Your task to perform on an android device: toggle improve location accuracy Image 0: 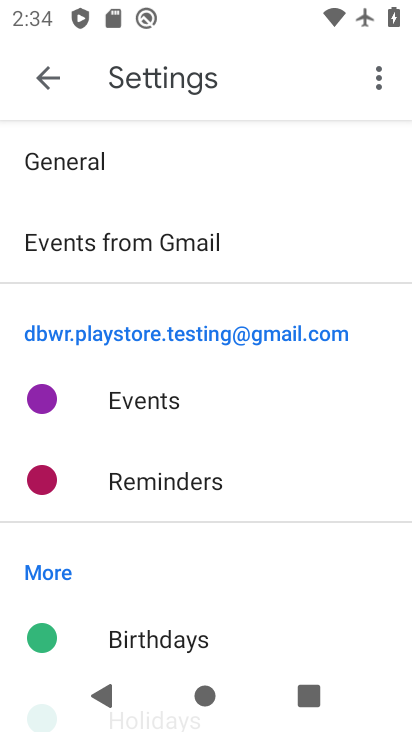
Step 0: press home button
Your task to perform on an android device: toggle improve location accuracy Image 1: 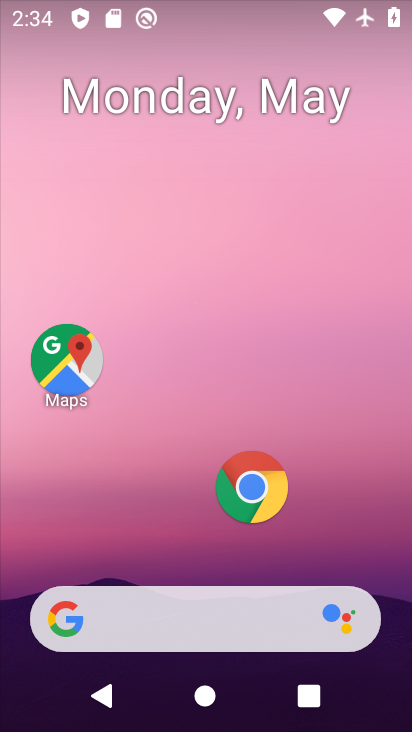
Step 1: drag from (146, 526) to (251, 89)
Your task to perform on an android device: toggle improve location accuracy Image 2: 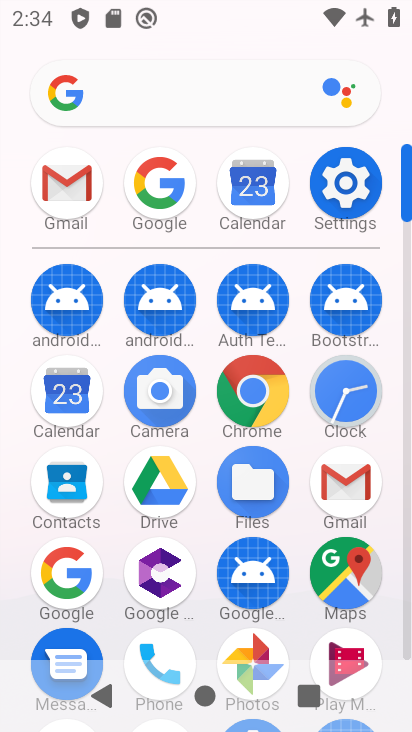
Step 2: click (338, 187)
Your task to perform on an android device: toggle improve location accuracy Image 3: 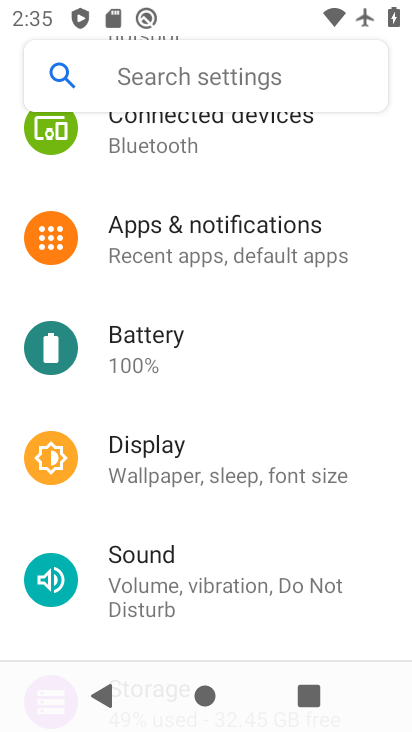
Step 3: drag from (239, 248) to (196, 438)
Your task to perform on an android device: toggle improve location accuracy Image 4: 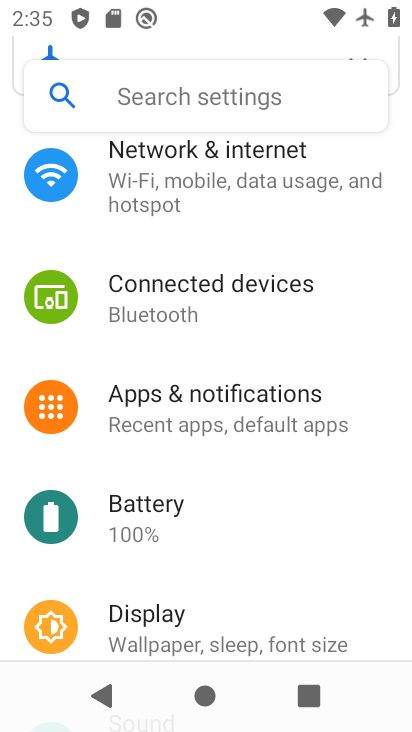
Step 4: drag from (253, 553) to (253, 263)
Your task to perform on an android device: toggle improve location accuracy Image 5: 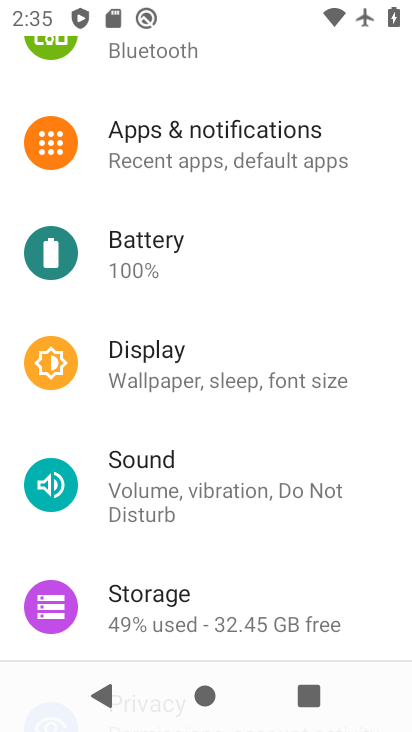
Step 5: drag from (215, 547) to (245, 323)
Your task to perform on an android device: toggle improve location accuracy Image 6: 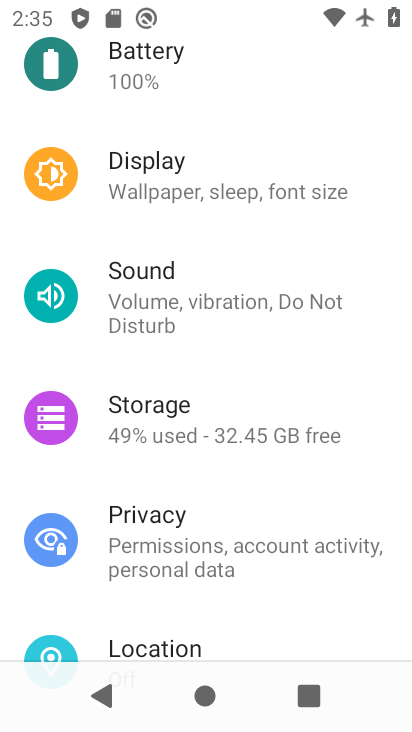
Step 6: drag from (241, 595) to (248, 321)
Your task to perform on an android device: toggle improve location accuracy Image 7: 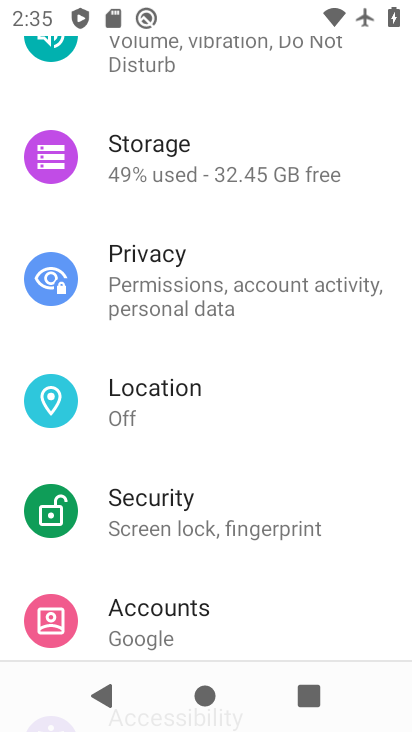
Step 7: click (153, 415)
Your task to perform on an android device: toggle improve location accuracy Image 8: 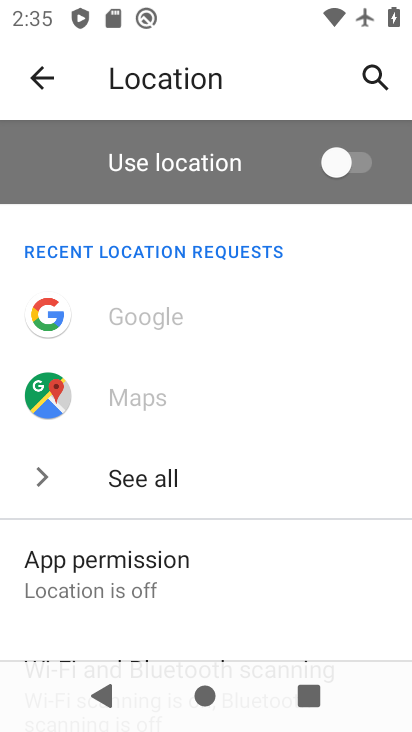
Step 8: drag from (226, 661) to (235, 252)
Your task to perform on an android device: toggle improve location accuracy Image 9: 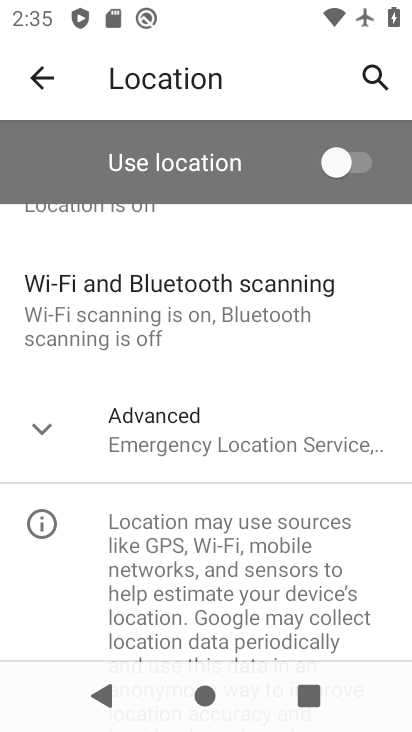
Step 9: drag from (192, 619) to (192, 442)
Your task to perform on an android device: toggle improve location accuracy Image 10: 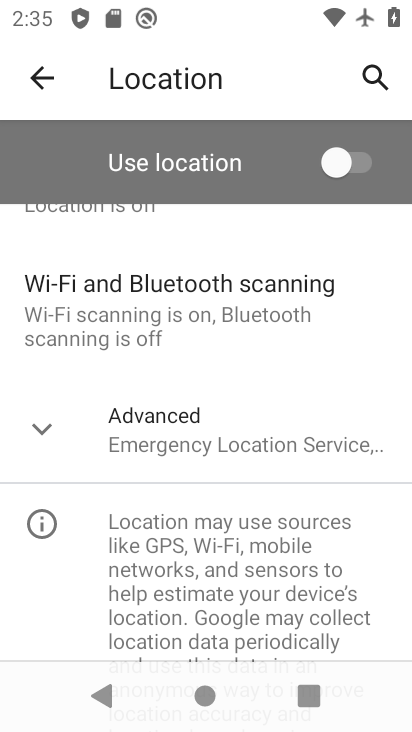
Step 10: click (193, 443)
Your task to perform on an android device: toggle improve location accuracy Image 11: 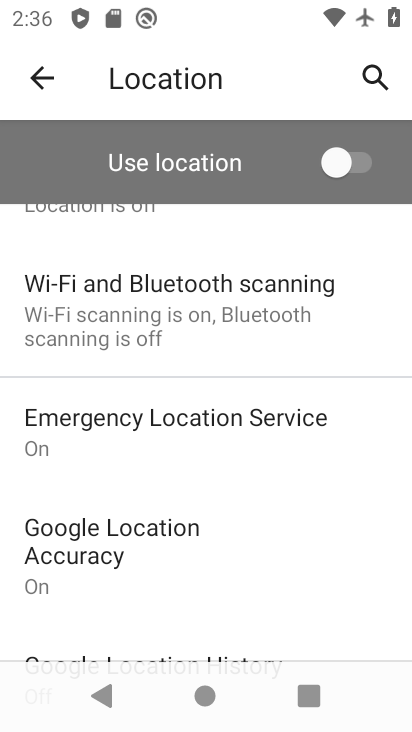
Step 11: click (101, 543)
Your task to perform on an android device: toggle improve location accuracy Image 12: 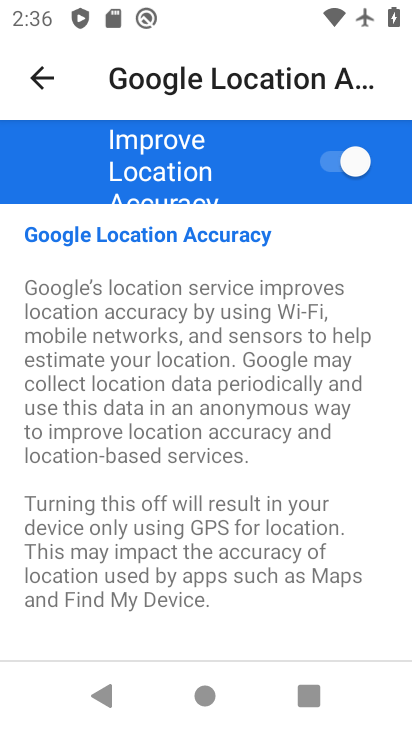
Step 12: click (347, 172)
Your task to perform on an android device: toggle improve location accuracy Image 13: 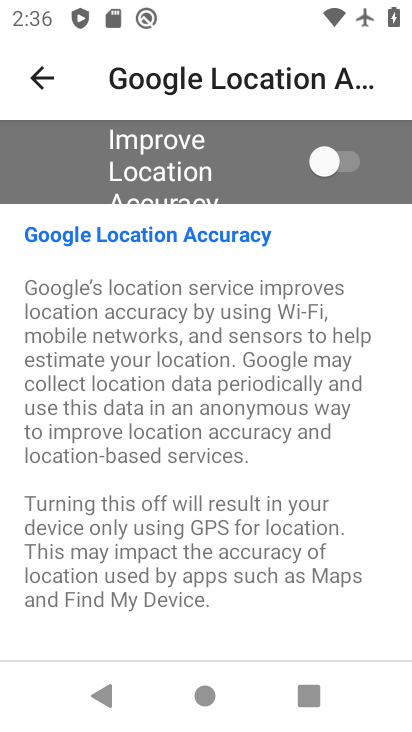
Step 13: task complete